Your task to perform on an android device: toggle sleep mode Image 0: 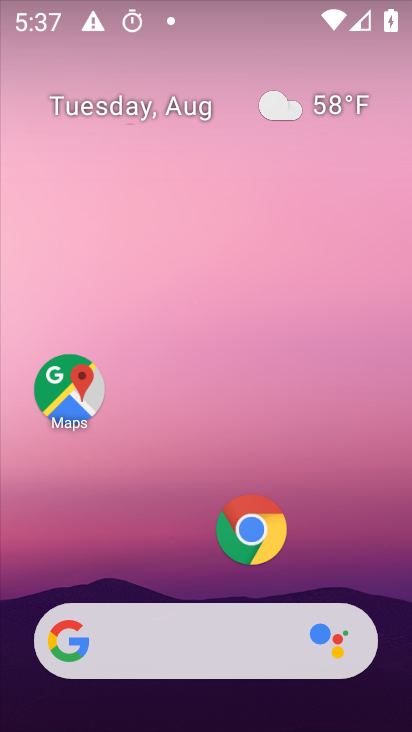
Step 0: drag from (181, 549) to (194, 217)
Your task to perform on an android device: toggle sleep mode Image 1: 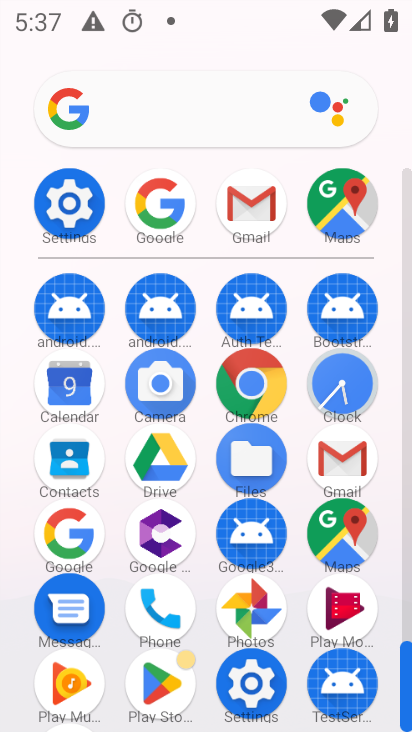
Step 1: click (69, 221)
Your task to perform on an android device: toggle sleep mode Image 2: 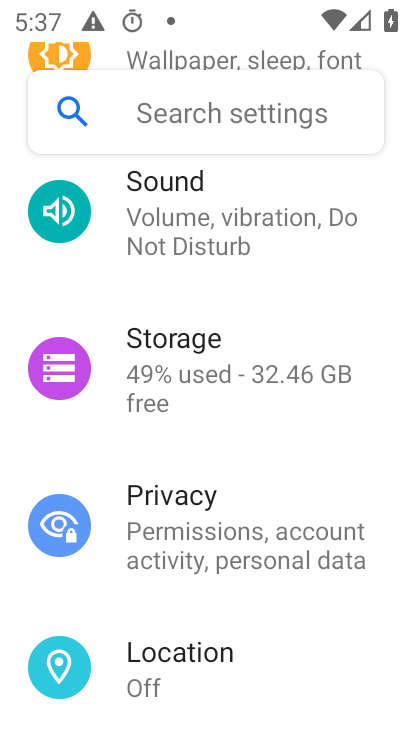
Step 2: drag from (251, 286) to (246, 509)
Your task to perform on an android device: toggle sleep mode Image 3: 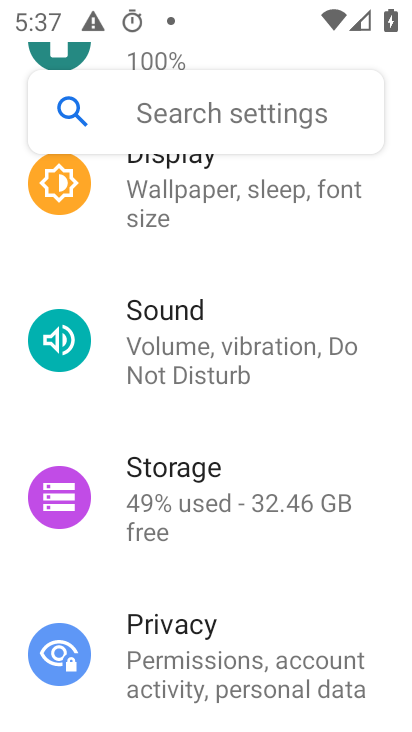
Step 3: drag from (224, 262) to (224, 502)
Your task to perform on an android device: toggle sleep mode Image 4: 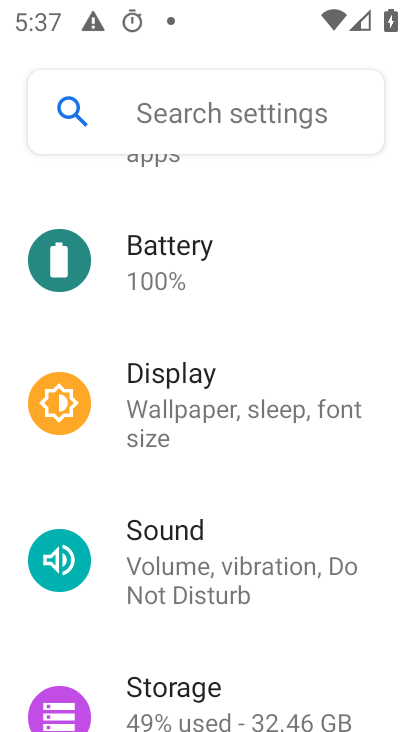
Step 4: click (198, 425)
Your task to perform on an android device: toggle sleep mode Image 5: 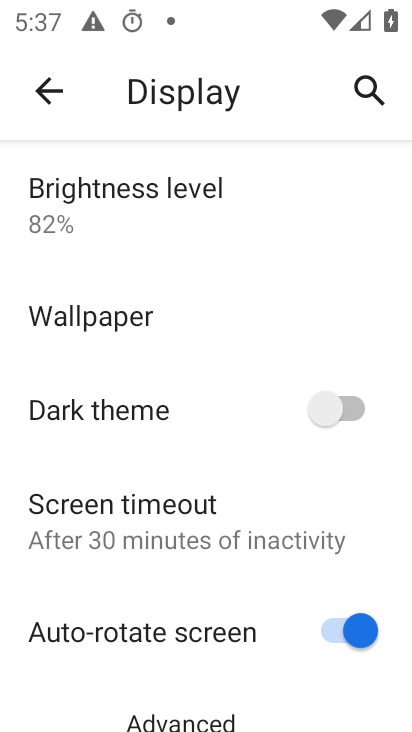
Step 5: click (156, 510)
Your task to perform on an android device: toggle sleep mode Image 6: 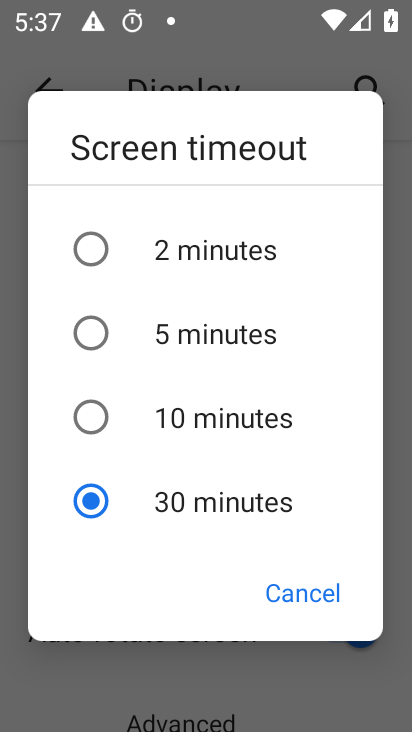
Step 6: click (206, 252)
Your task to perform on an android device: toggle sleep mode Image 7: 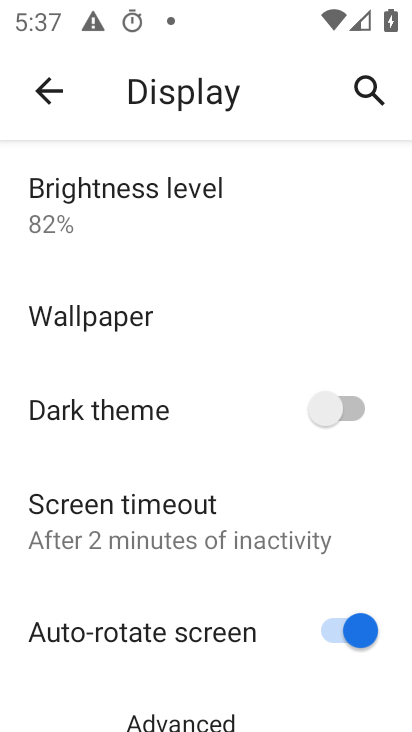
Step 7: task complete